Your task to perform on an android device: Go to sound settings Image 0: 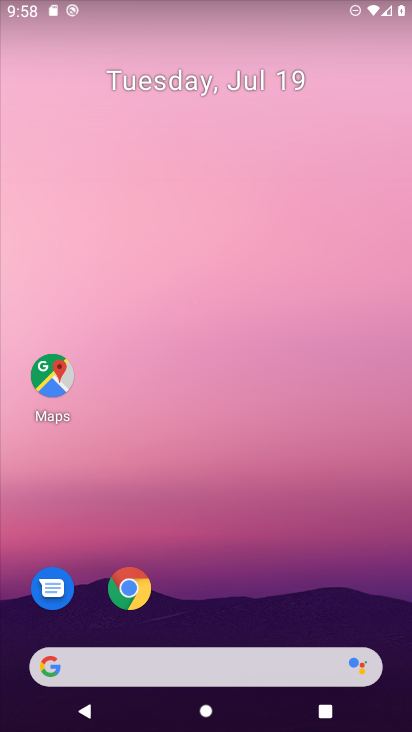
Step 0: drag from (255, 433) to (184, 115)
Your task to perform on an android device: Go to sound settings Image 1: 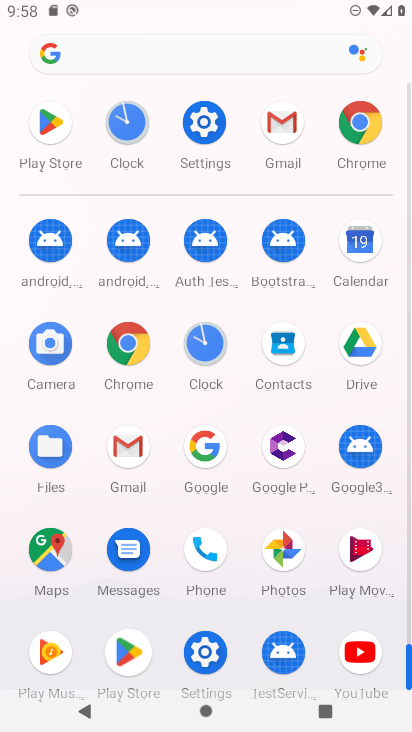
Step 1: click (202, 133)
Your task to perform on an android device: Go to sound settings Image 2: 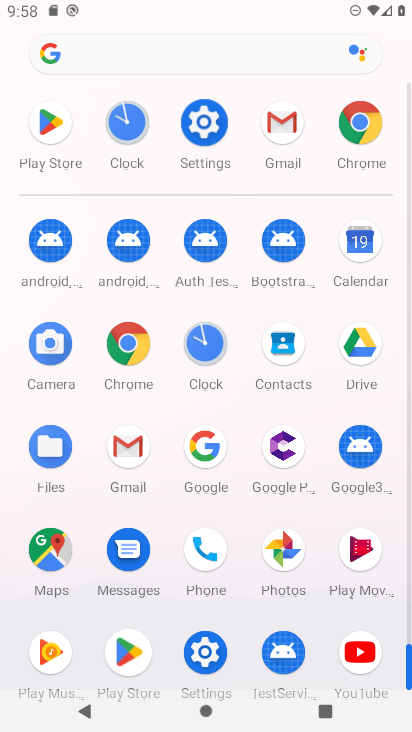
Step 2: click (202, 133)
Your task to perform on an android device: Go to sound settings Image 3: 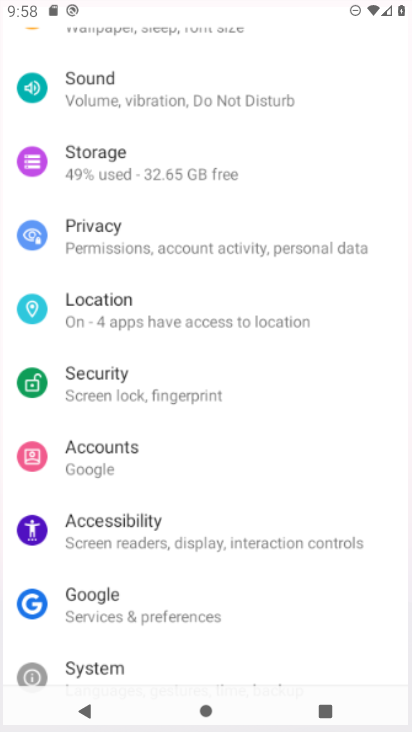
Step 3: click (202, 132)
Your task to perform on an android device: Go to sound settings Image 4: 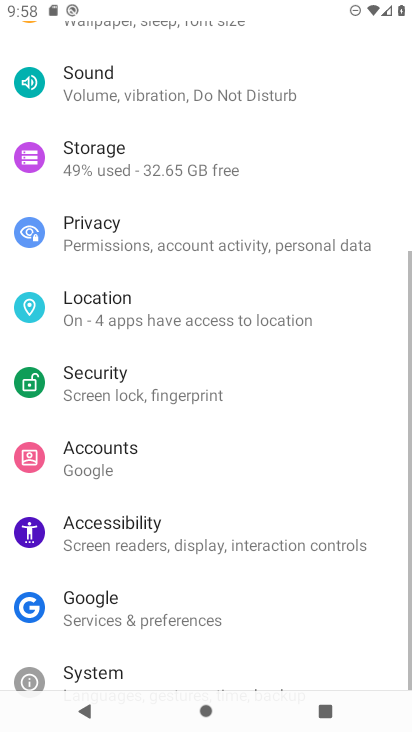
Step 4: click (203, 131)
Your task to perform on an android device: Go to sound settings Image 5: 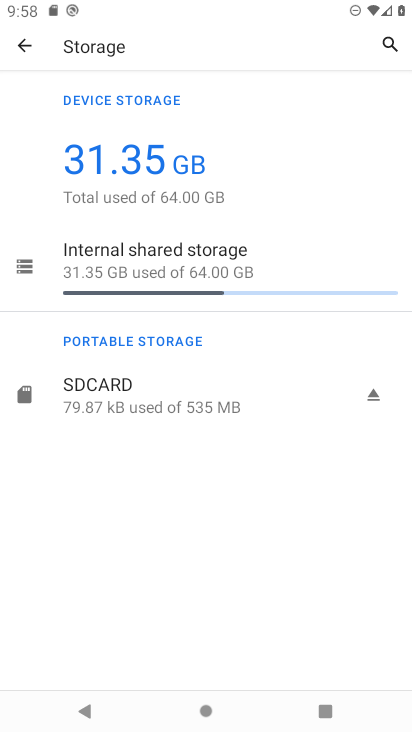
Step 5: click (25, 54)
Your task to perform on an android device: Go to sound settings Image 6: 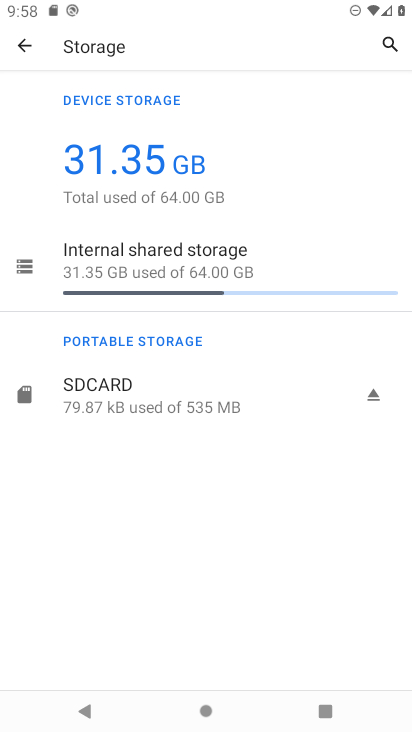
Step 6: click (24, 46)
Your task to perform on an android device: Go to sound settings Image 7: 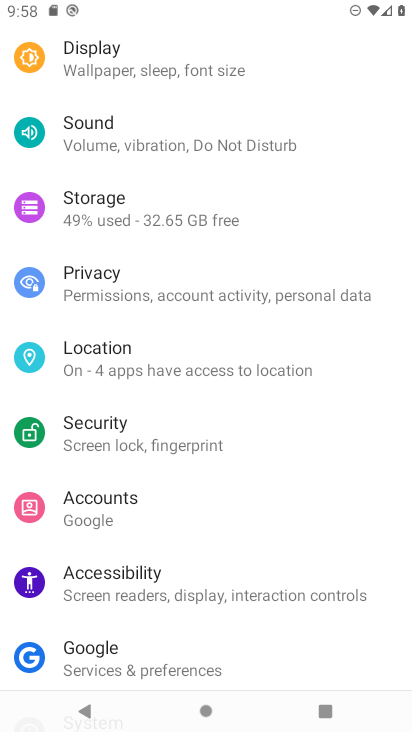
Step 7: click (93, 122)
Your task to perform on an android device: Go to sound settings Image 8: 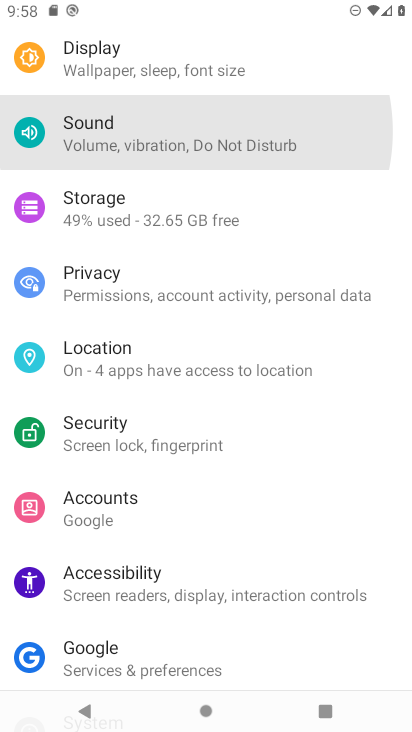
Step 8: click (90, 127)
Your task to perform on an android device: Go to sound settings Image 9: 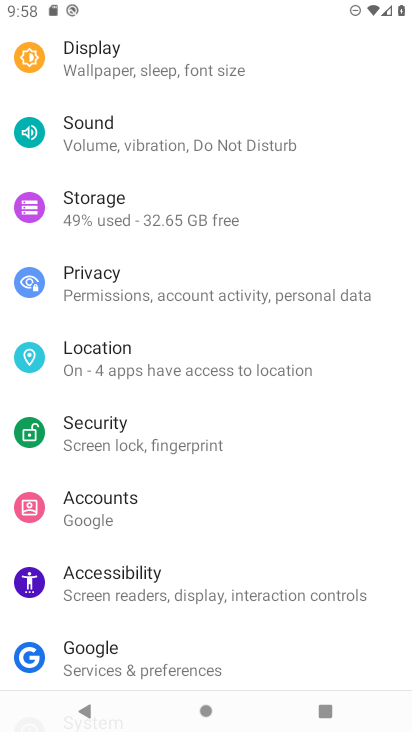
Step 9: click (90, 128)
Your task to perform on an android device: Go to sound settings Image 10: 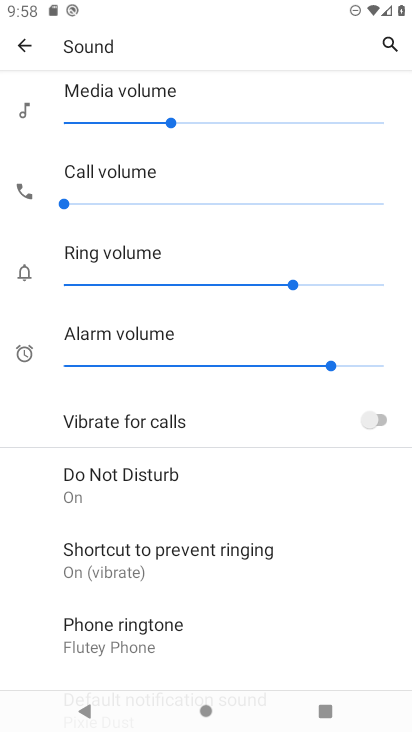
Step 10: task complete